Your task to perform on an android device: Open Maps and search for coffee Image 0: 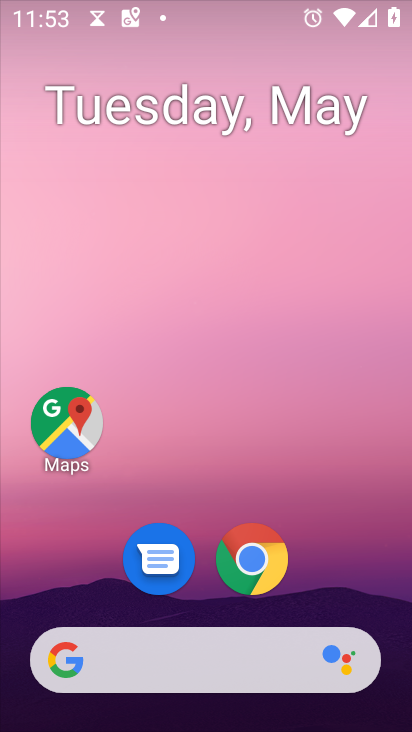
Step 0: drag from (349, 597) to (407, 263)
Your task to perform on an android device: Open Maps and search for coffee Image 1: 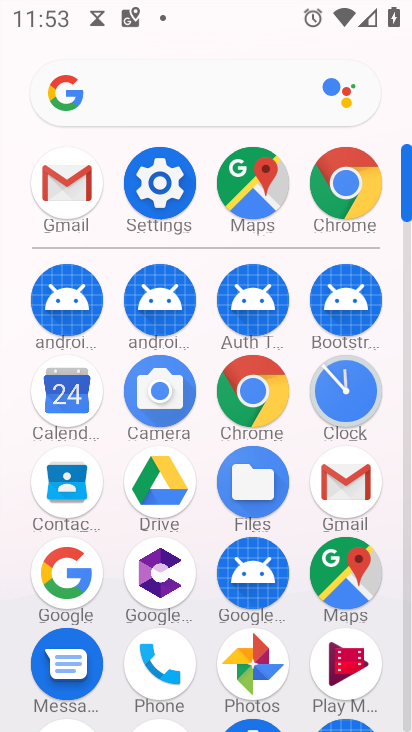
Step 1: click (263, 165)
Your task to perform on an android device: Open Maps and search for coffee Image 2: 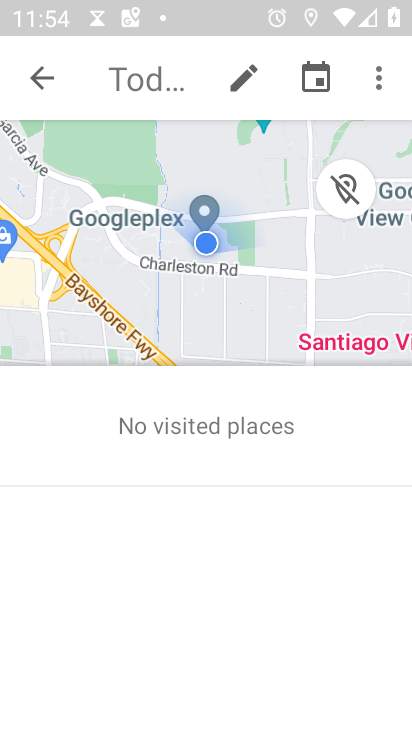
Step 2: click (53, 81)
Your task to perform on an android device: Open Maps and search for coffee Image 3: 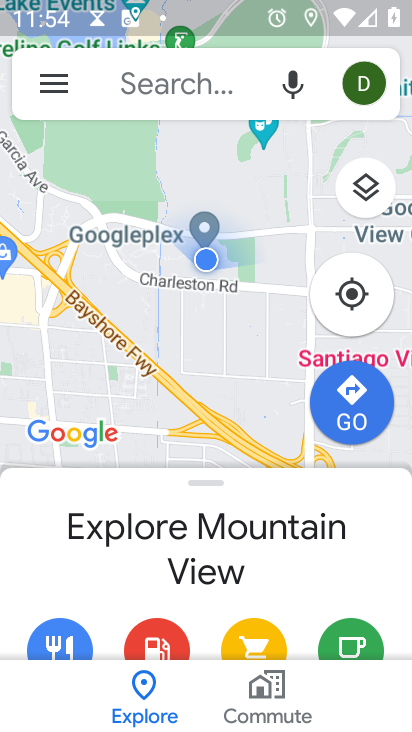
Step 3: click (205, 82)
Your task to perform on an android device: Open Maps and search for coffee Image 4: 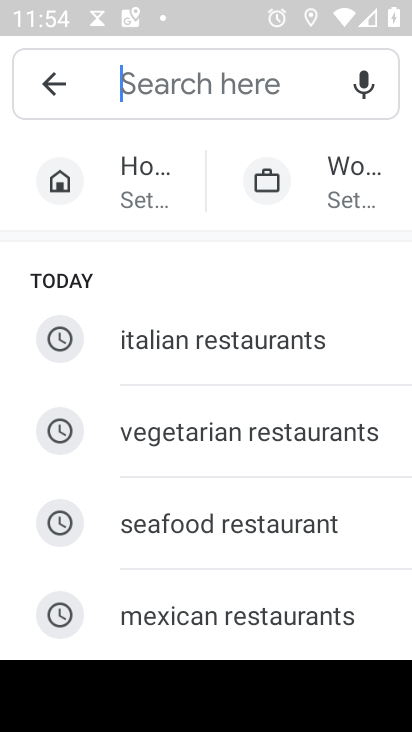
Step 4: drag from (324, 584) to (281, 292)
Your task to perform on an android device: Open Maps and search for coffee Image 5: 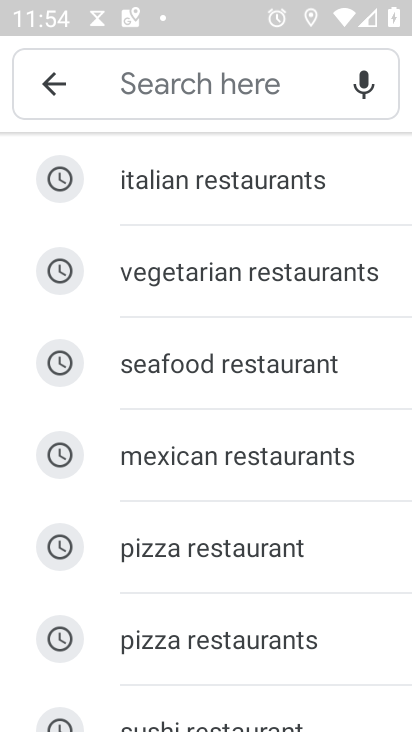
Step 5: drag from (283, 252) to (322, 710)
Your task to perform on an android device: Open Maps and search for coffee Image 6: 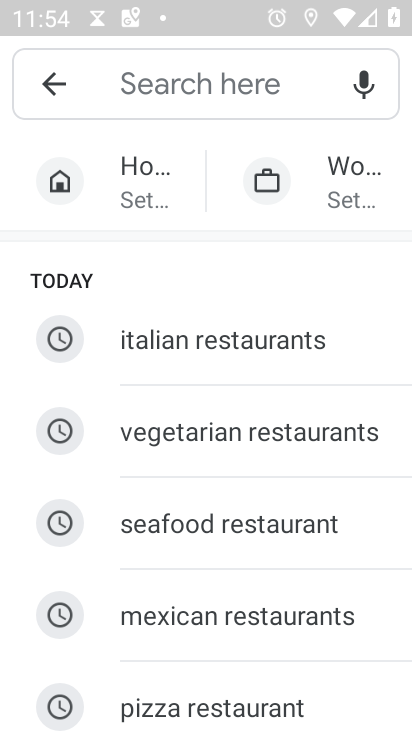
Step 6: click (212, 99)
Your task to perform on an android device: Open Maps and search for coffee Image 7: 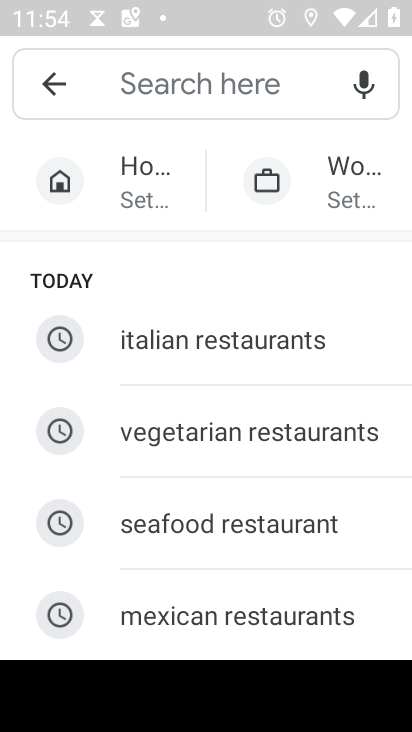
Step 7: type "coffee"
Your task to perform on an android device: Open Maps and search for coffee Image 8: 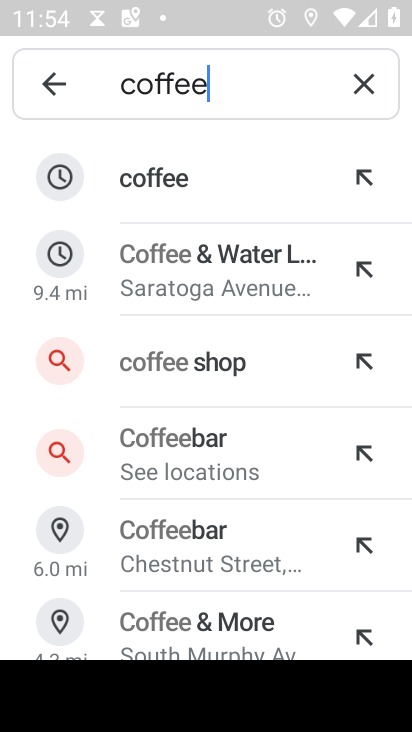
Step 8: click (168, 179)
Your task to perform on an android device: Open Maps and search for coffee Image 9: 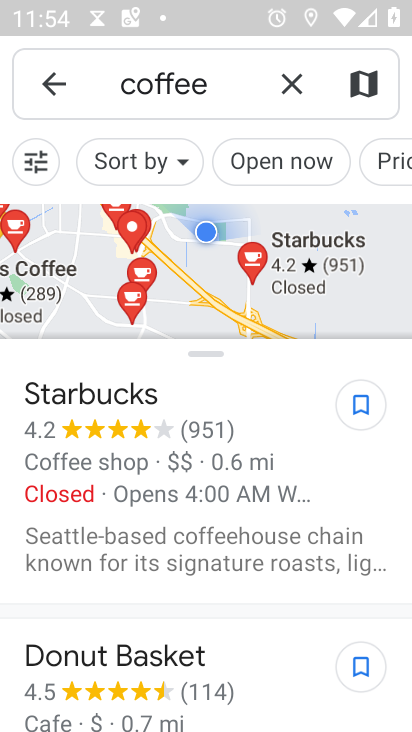
Step 9: task complete